Your task to perform on an android device: turn off notifications in google photos Image 0: 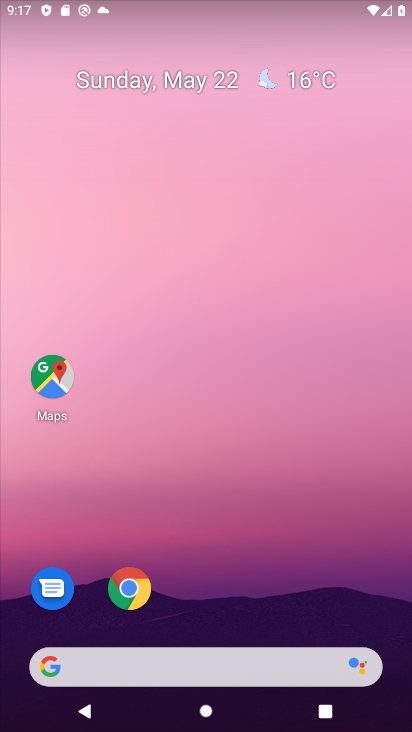
Step 0: drag from (206, 609) to (213, 150)
Your task to perform on an android device: turn off notifications in google photos Image 1: 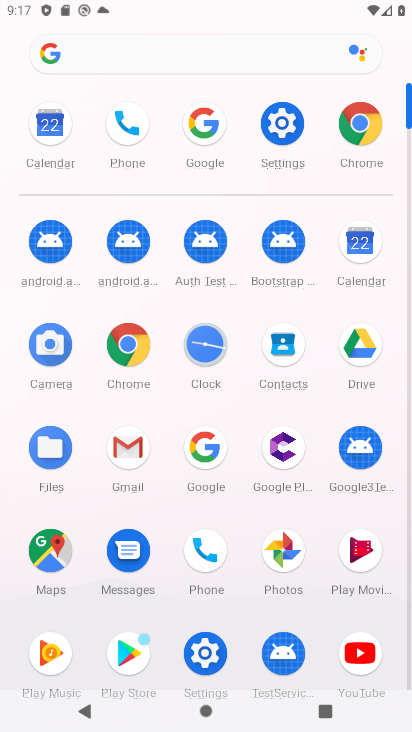
Step 1: click (265, 544)
Your task to perform on an android device: turn off notifications in google photos Image 2: 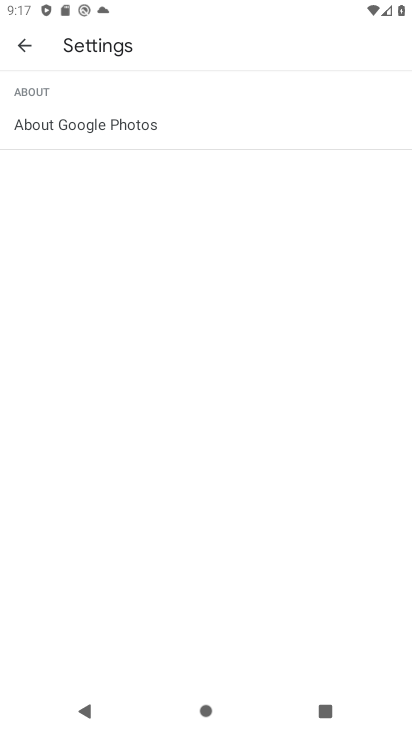
Step 2: click (29, 47)
Your task to perform on an android device: turn off notifications in google photos Image 3: 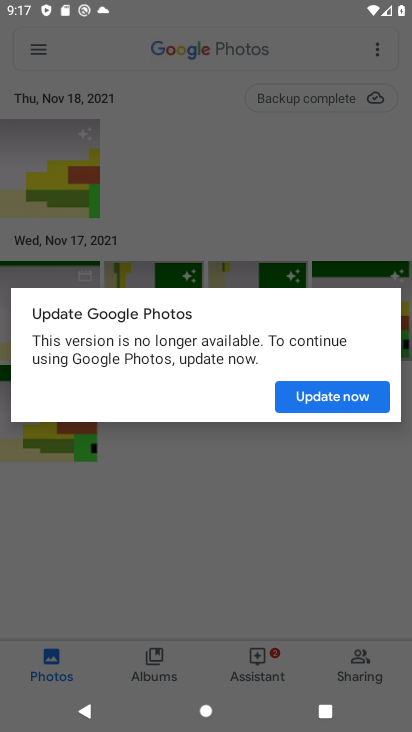
Step 3: click (306, 404)
Your task to perform on an android device: turn off notifications in google photos Image 4: 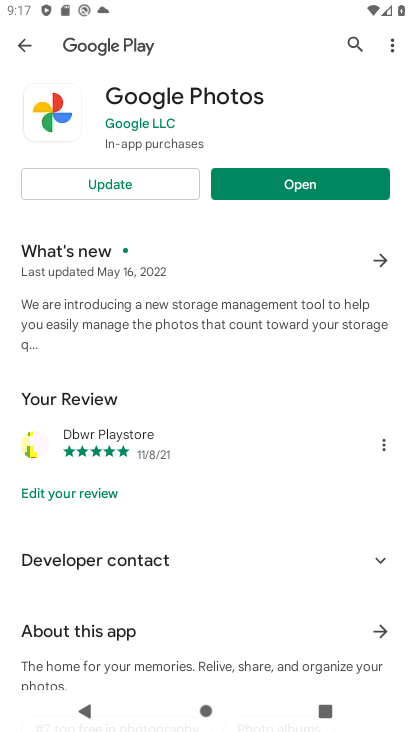
Step 4: click (286, 185)
Your task to perform on an android device: turn off notifications in google photos Image 5: 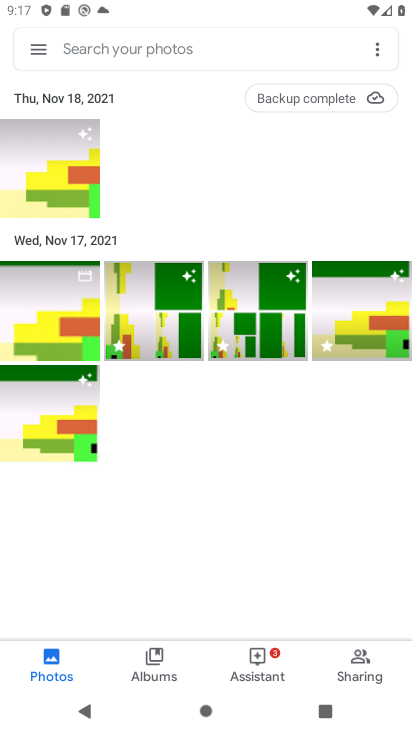
Step 5: click (30, 42)
Your task to perform on an android device: turn off notifications in google photos Image 6: 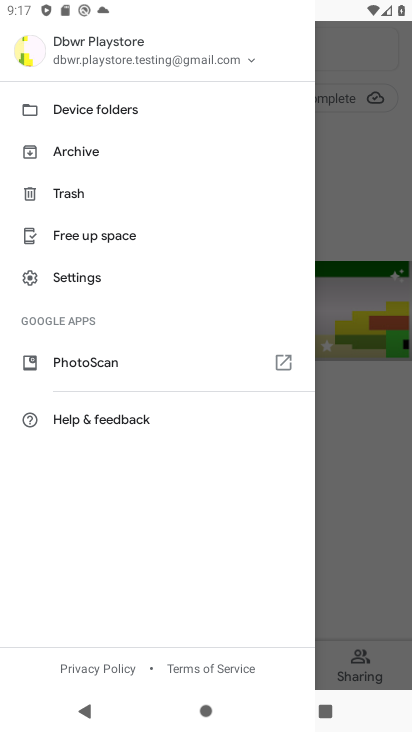
Step 6: click (102, 263)
Your task to perform on an android device: turn off notifications in google photos Image 7: 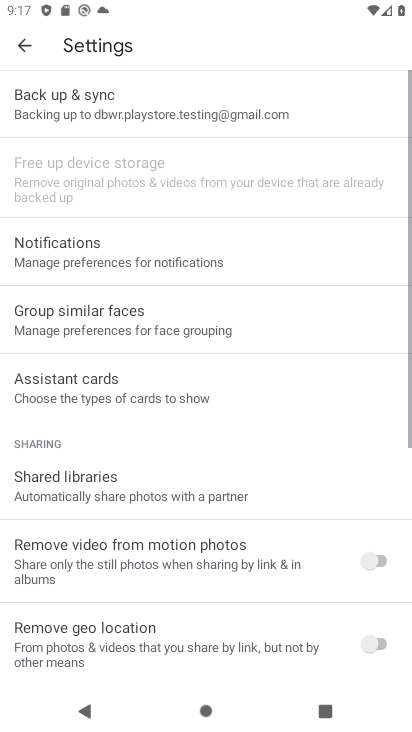
Step 7: drag from (171, 496) to (184, 436)
Your task to perform on an android device: turn off notifications in google photos Image 8: 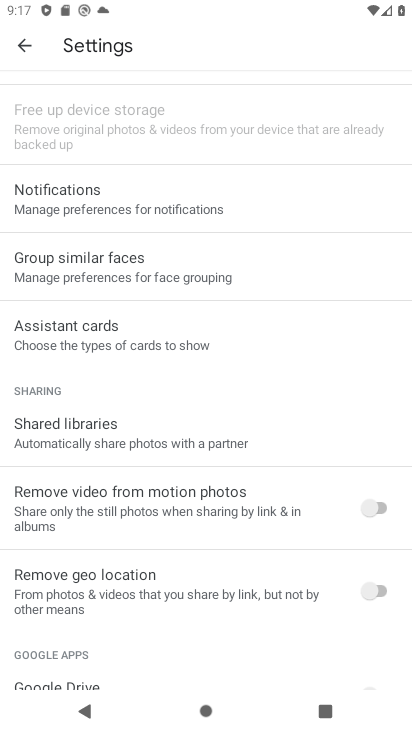
Step 8: click (111, 209)
Your task to perform on an android device: turn off notifications in google photos Image 9: 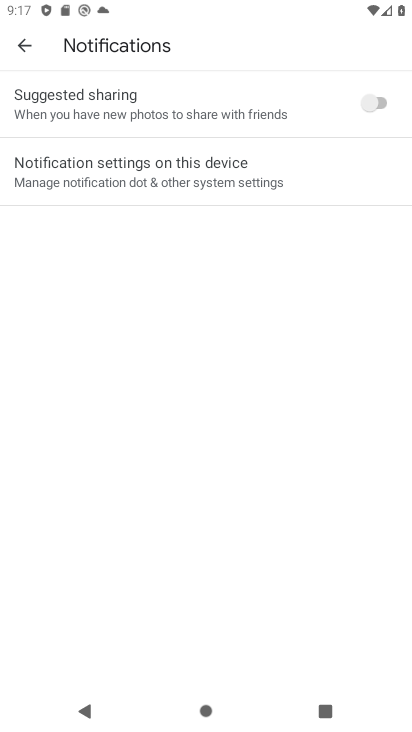
Step 9: click (153, 190)
Your task to perform on an android device: turn off notifications in google photos Image 10: 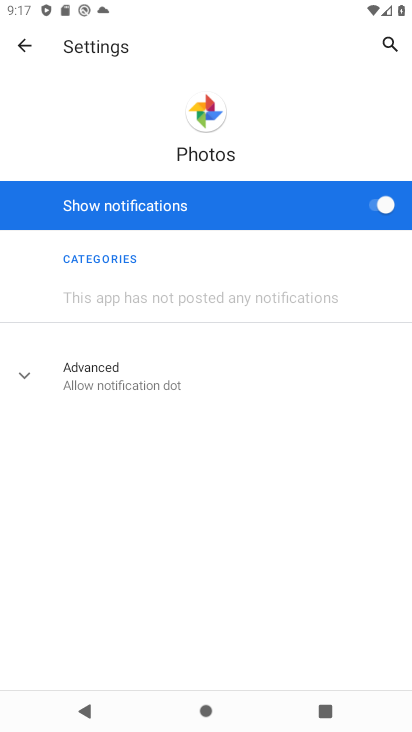
Step 10: click (368, 202)
Your task to perform on an android device: turn off notifications in google photos Image 11: 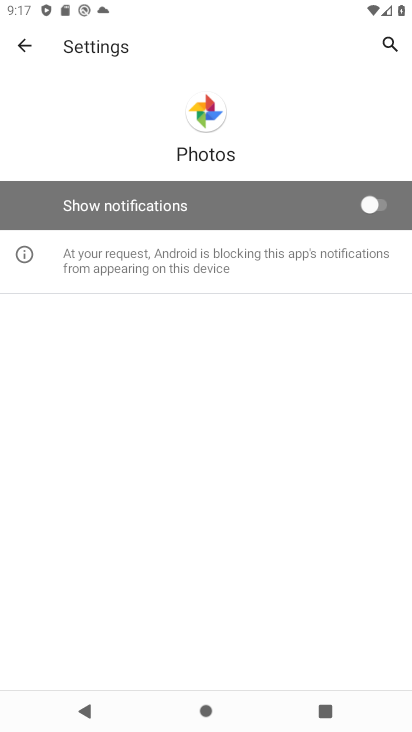
Step 11: task complete